Your task to perform on an android device: check data usage Image 0: 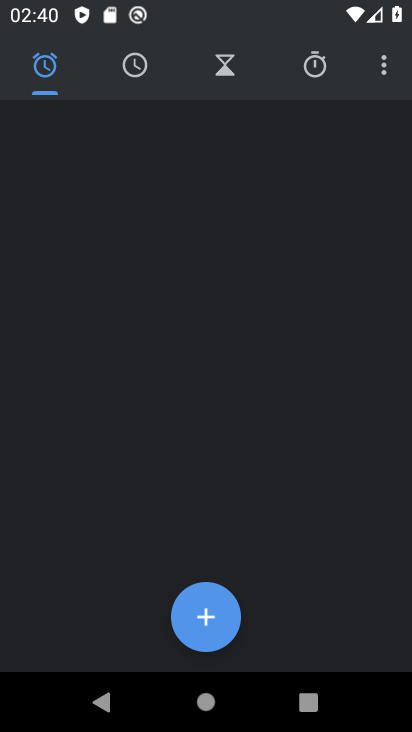
Step 0: drag from (199, 587) to (218, 283)
Your task to perform on an android device: check data usage Image 1: 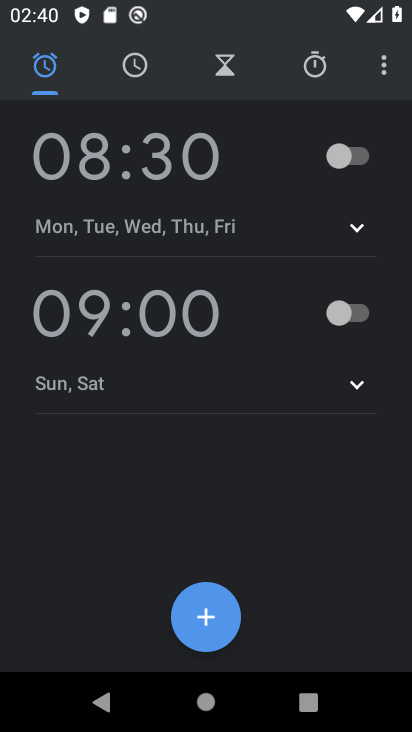
Step 1: drag from (256, 538) to (243, 202)
Your task to perform on an android device: check data usage Image 2: 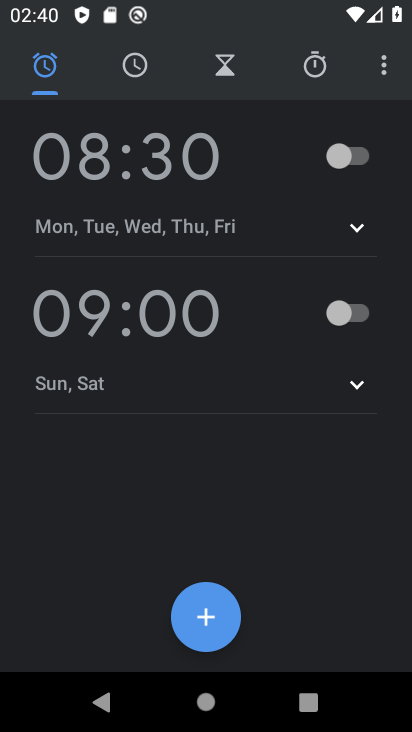
Step 2: press home button
Your task to perform on an android device: check data usage Image 3: 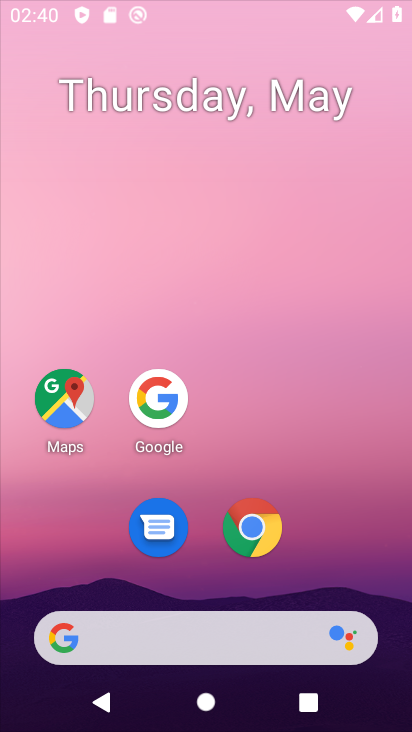
Step 3: drag from (158, 592) to (300, 128)
Your task to perform on an android device: check data usage Image 4: 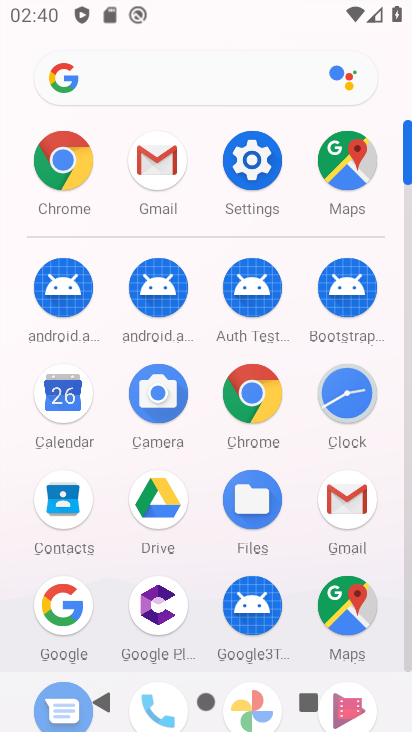
Step 4: click (246, 135)
Your task to perform on an android device: check data usage Image 5: 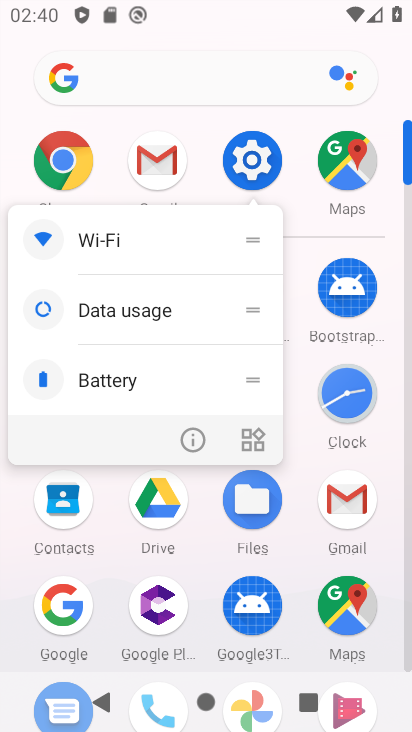
Step 5: click (177, 315)
Your task to perform on an android device: check data usage Image 6: 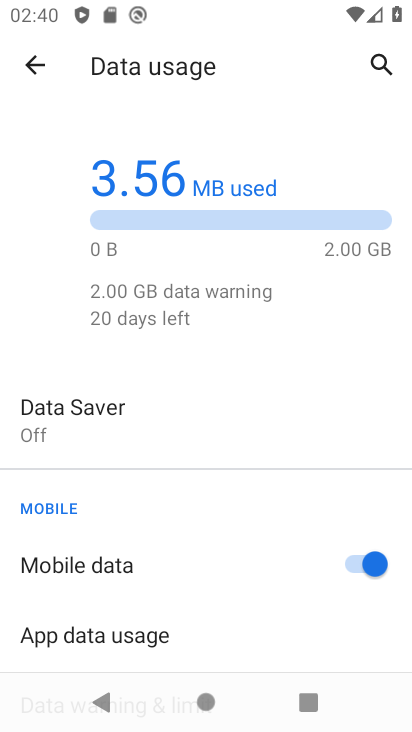
Step 6: task complete